Your task to perform on an android device: refresh tabs in the chrome app Image 0: 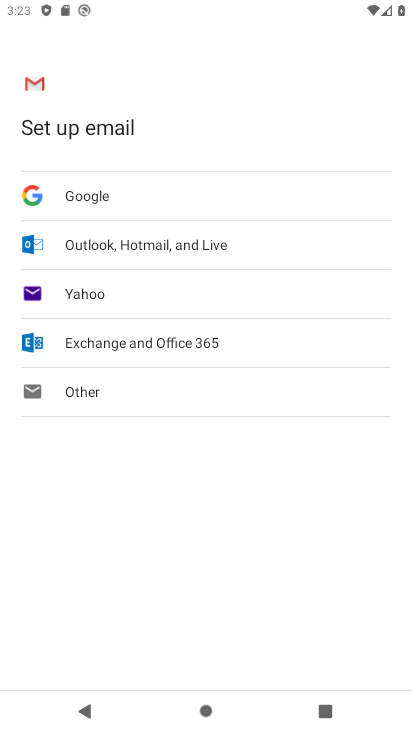
Step 0: press home button
Your task to perform on an android device: refresh tabs in the chrome app Image 1: 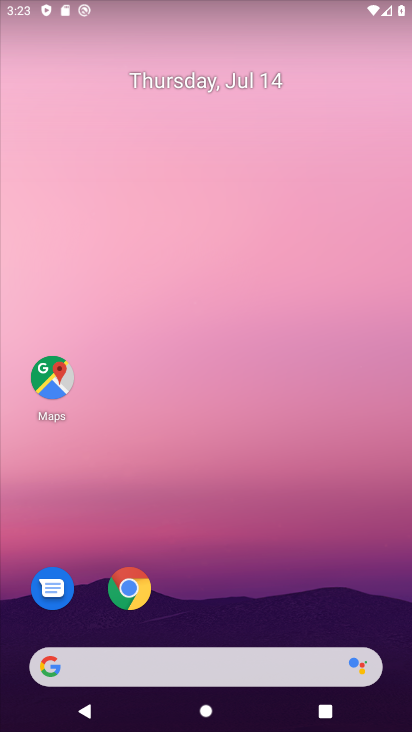
Step 1: click (135, 603)
Your task to perform on an android device: refresh tabs in the chrome app Image 2: 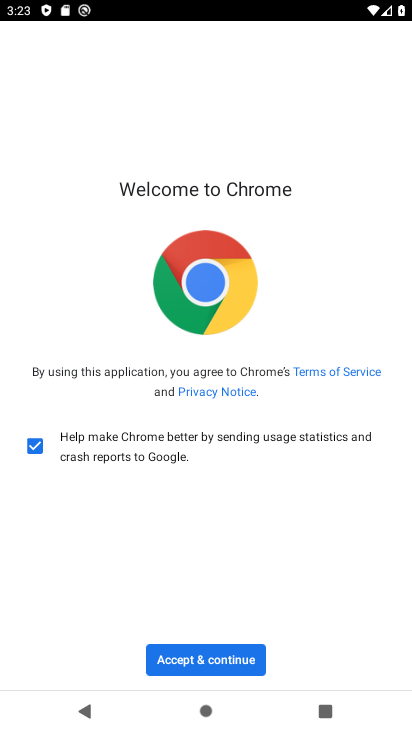
Step 2: click (211, 656)
Your task to perform on an android device: refresh tabs in the chrome app Image 3: 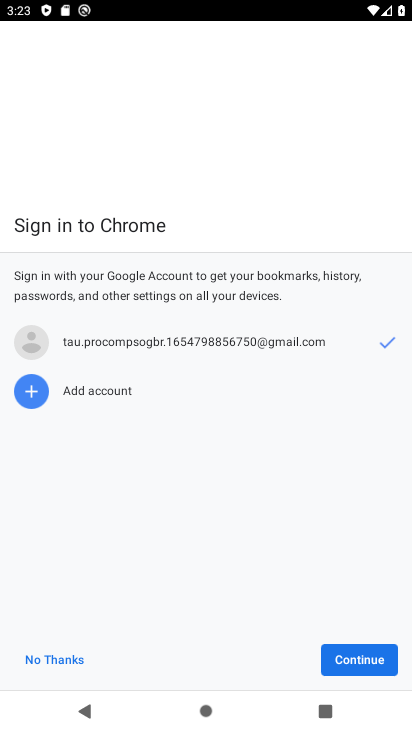
Step 3: click (372, 658)
Your task to perform on an android device: refresh tabs in the chrome app Image 4: 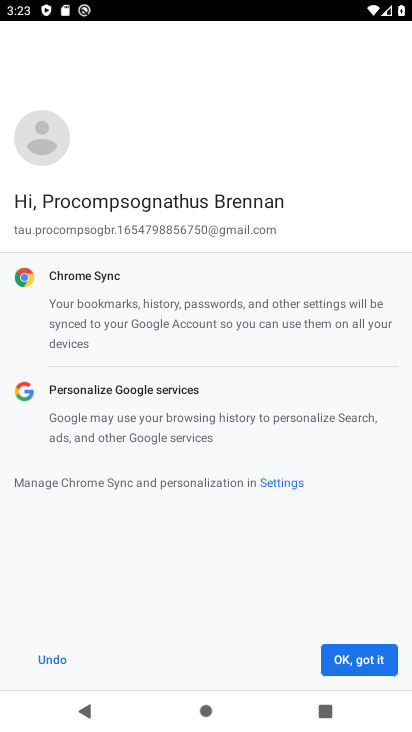
Step 4: click (372, 658)
Your task to perform on an android device: refresh tabs in the chrome app Image 5: 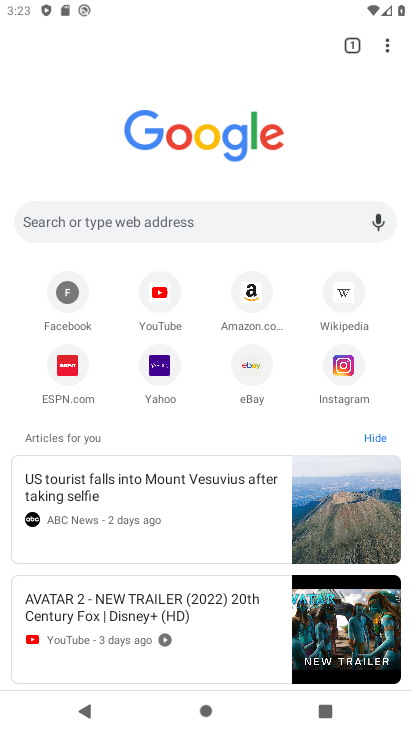
Step 5: click (392, 42)
Your task to perform on an android device: refresh tabs in the chrome app Image 6: 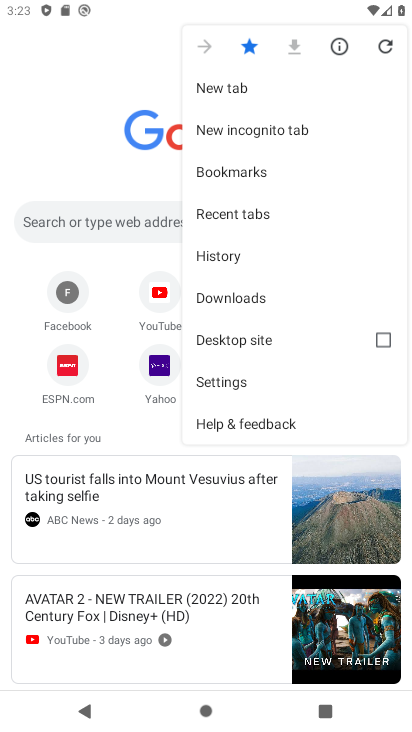
Step 6: click (392, 42)
Your task to perform on an android device: refresh tabs in the chrome app Image 7: 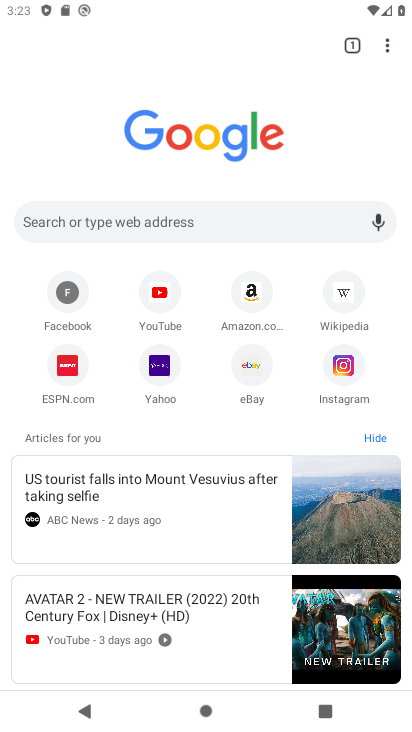
Step 7: task complete